Your task to perform on an android device: open device folders in google photos Image 0: 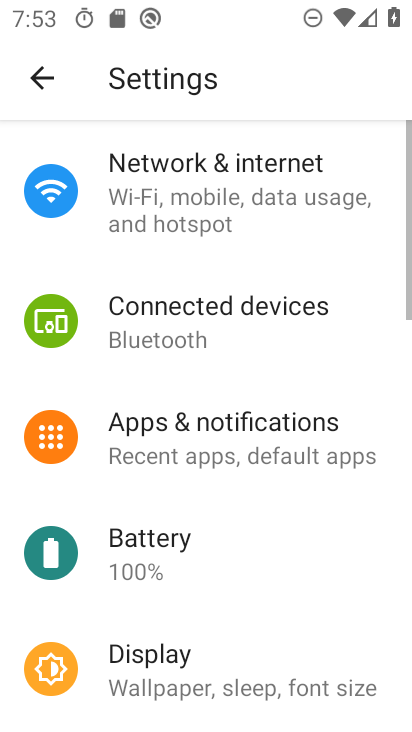
Step 0: press home button
Your task to perform on an android device: open device folders in google photos Image 1: 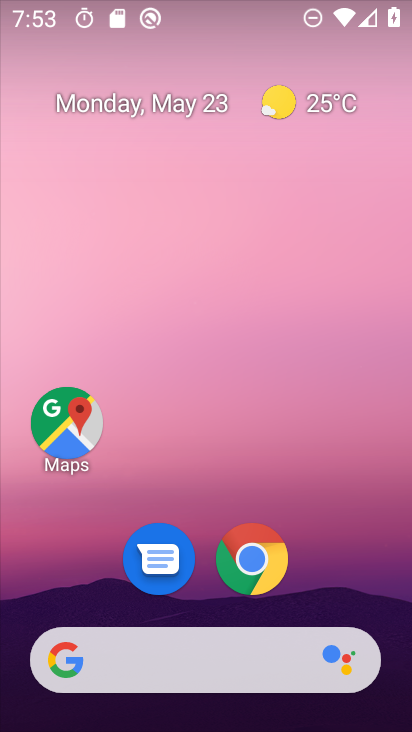
Step 1: drag from (399, 642) to (317, 58)
Your task to perform on an android device: open device folders in google photos Image 2: 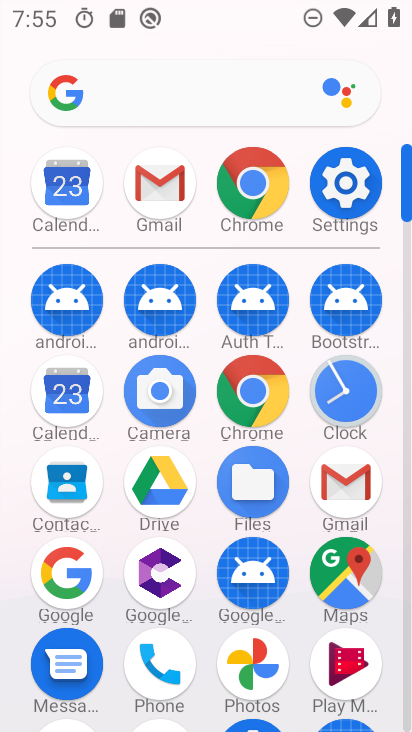
Step 2: click (246, 647)
Your task to perform on an android device: open device folders in google photos Image 3: 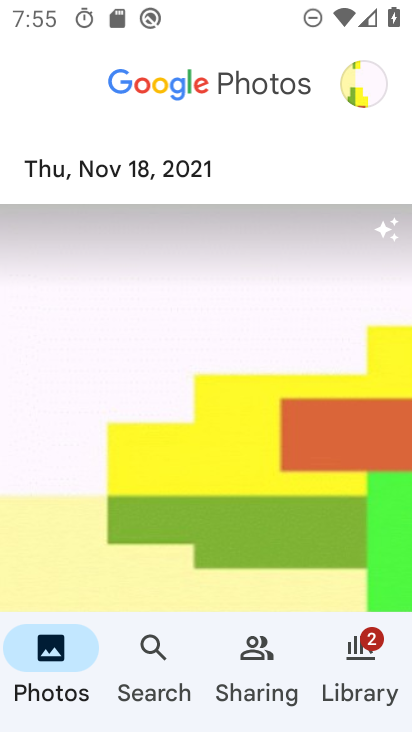
Step 3: task complete